Your task to perform on an android device: set default search engine in the chrome app Image 0: 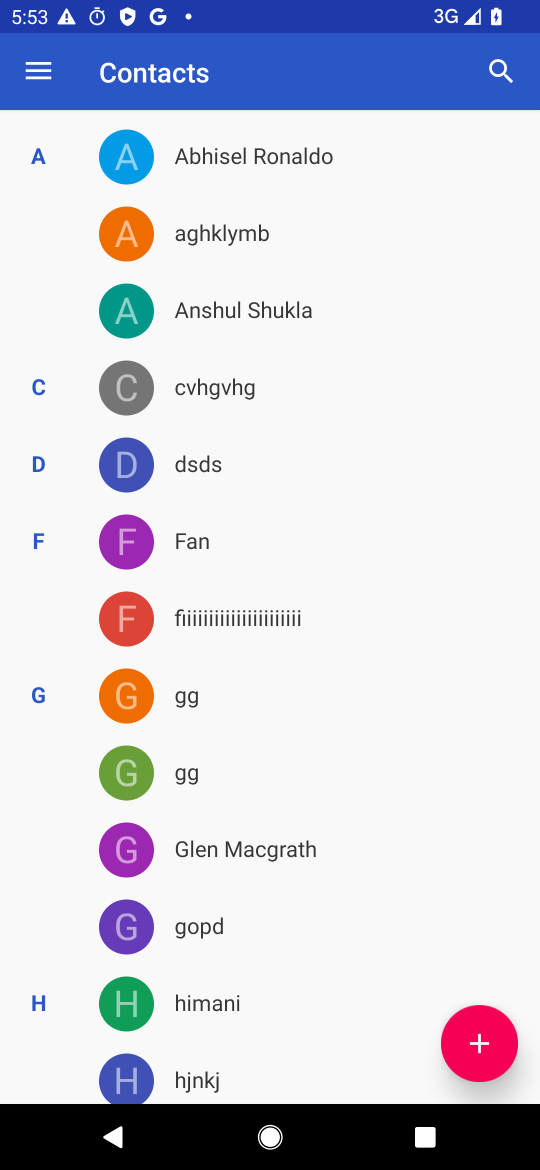
Step 0: press home button
Your task to perform on an android device: set default search engine in the chrome app Image 1: 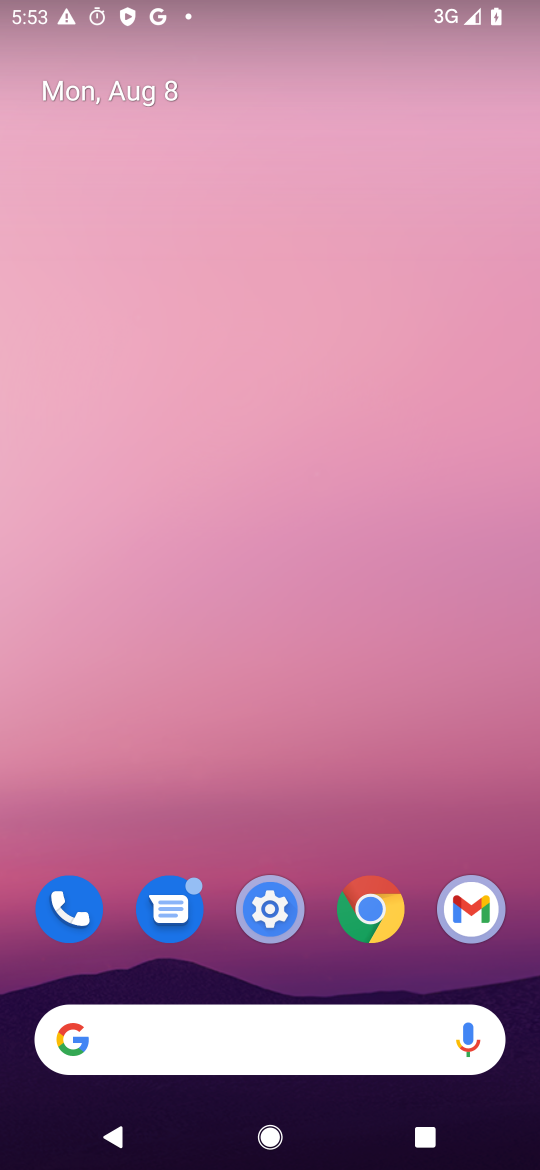
Step 1: click (376, 910)
Your task to perform on an android device: set default search engine in the chrome app Image 2: 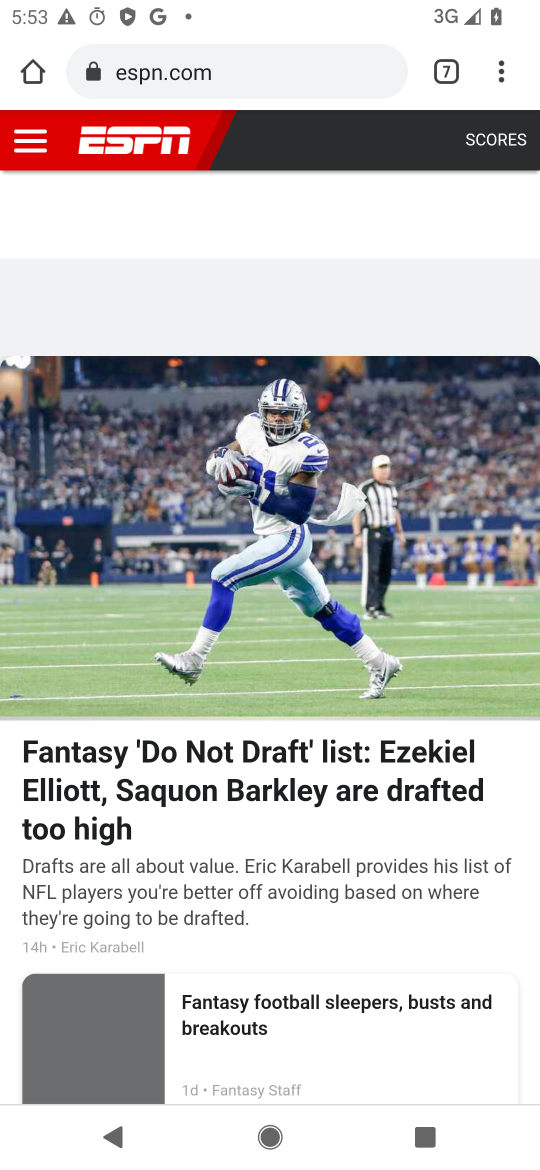
Step 2: drag from (503, 73) to (383, 994)
Your task to perform on an android device: set default search engine in the chrome app Image 3: 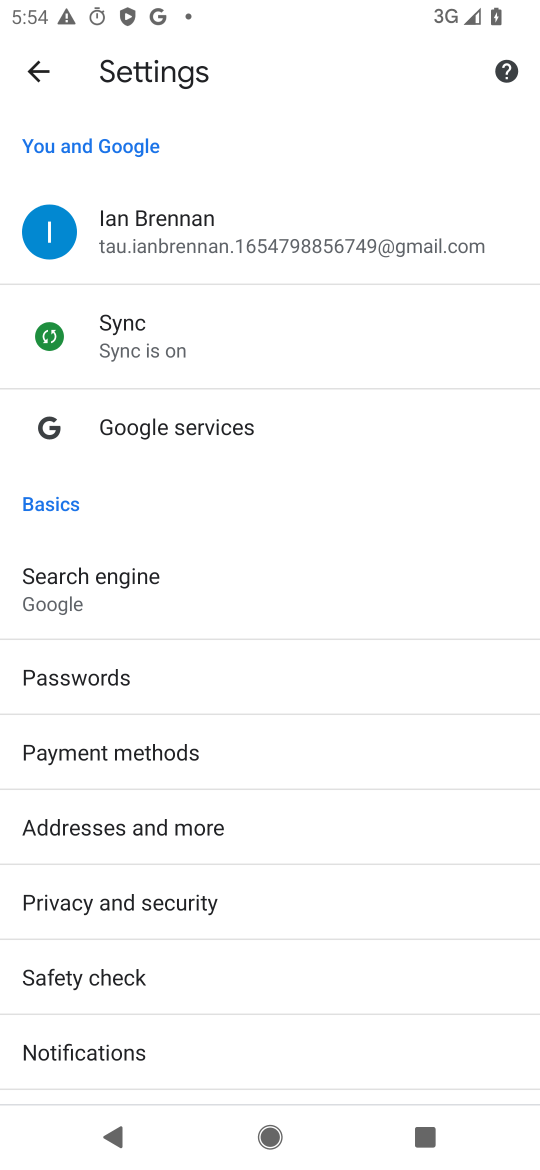
Step 3: click (94, 593)
Your task to perform on an android device: set default search engine in the chrome app Image 4: 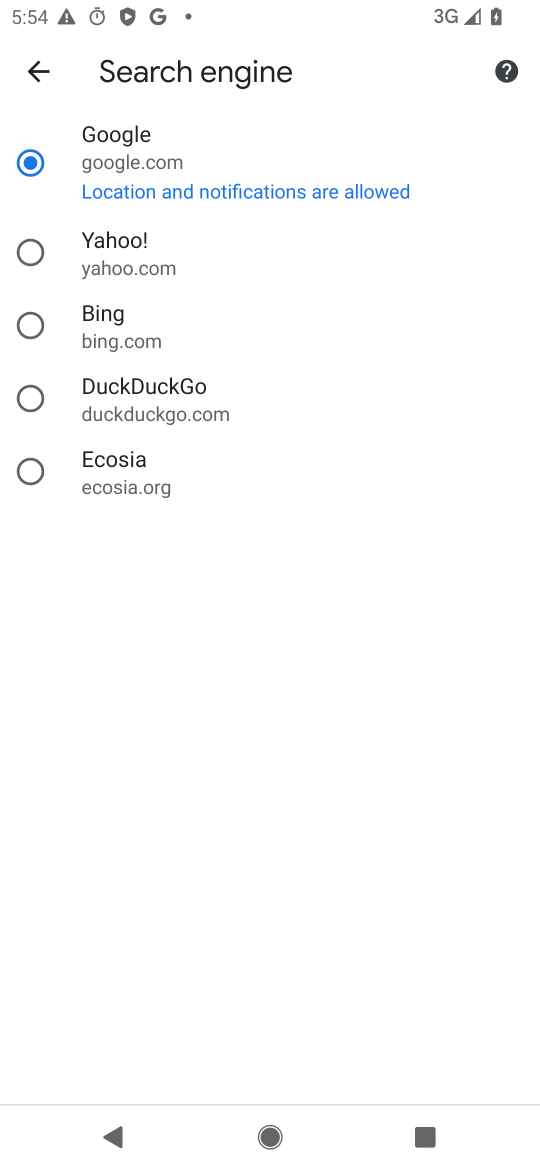
Step 4: click (19, 249)
Your task to perform on an android device: set default search engine in the chrome app Image 5: 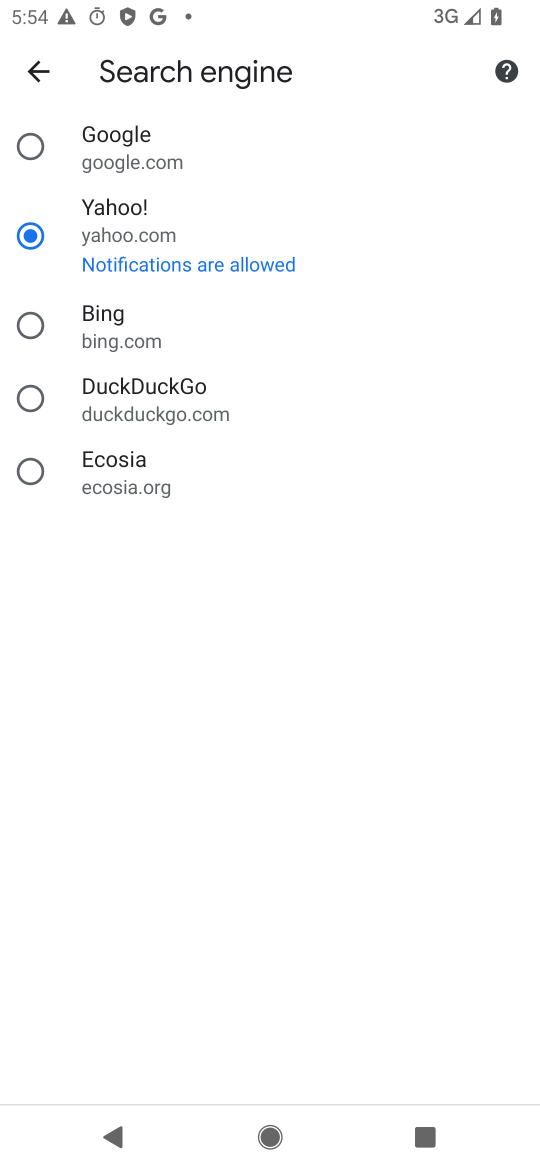
Step 5: task complete